Your task to perform on an android device: open the mobile data screen to see how much data has been used Image 0: 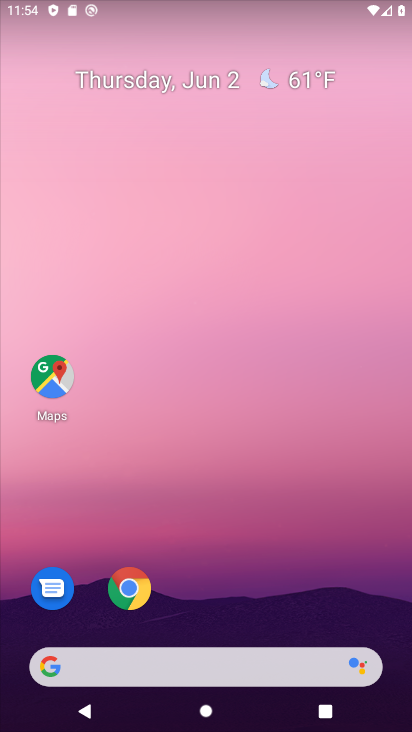
Step 0: click (237, 150)
Your task to perform on an android device: open the mobile data screen to see how much data has been used Image 1: 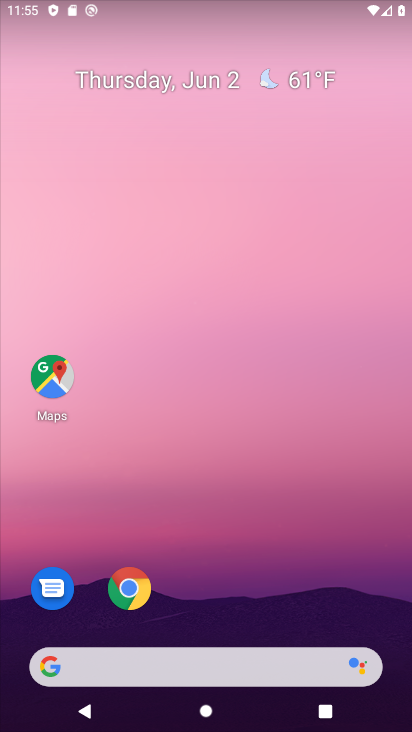
Step 1: drag from (231, 164) to (272, 119)
Your task to perform on an android device: open the mobile data screen to see how much data has been used Image 2: 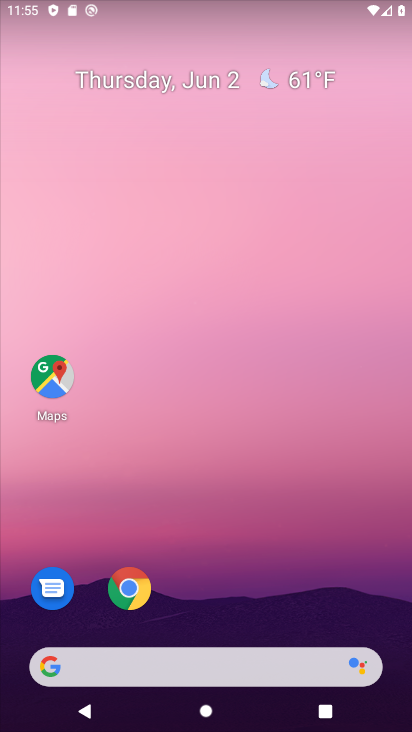
Step 2: drag from (201, 567) to (219, 67)
Your task to perform on an android device: open the mobile data screen to see how much data has been used Image 3: 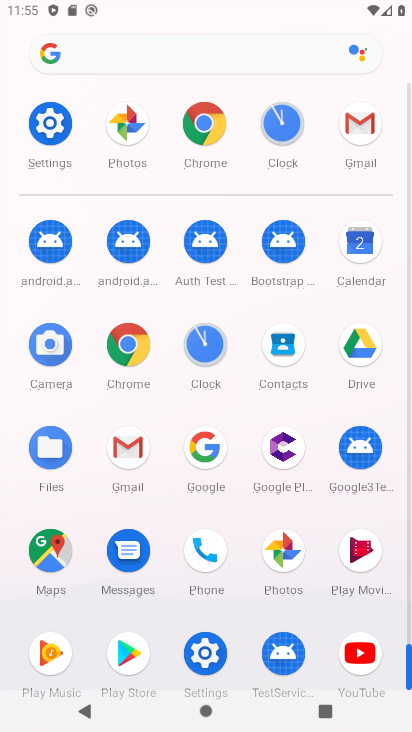
Step 3: drag from (239, 199) to (228, 39)
Your task to perform on an android device: open the mobile data screen to see how much data has been used Image 4: 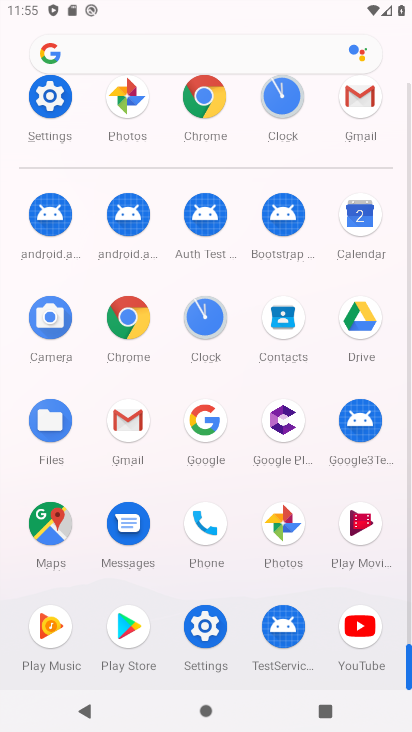
Step 4: click (211, 626)
Your task to perform on an android device: open the mobile data screen to see how much data has been used Image 5: 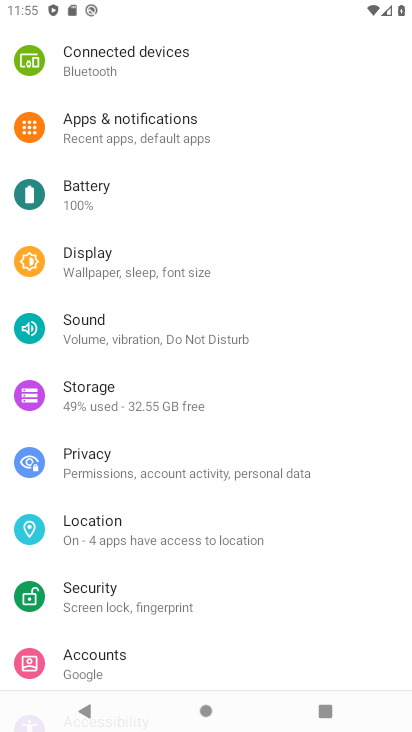
Step 5: drag from (193, 213) to (250, 551)
Your task to perform on an android device: open the mobile data screen to see how much data has been used Image 6: 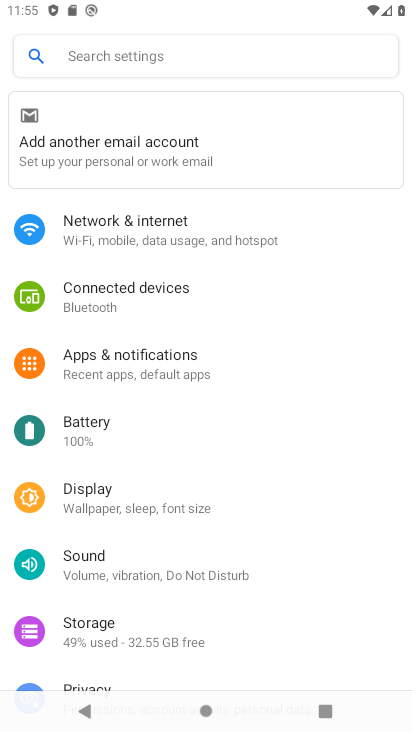
Step 6: drag from (163, 560) to (165, 367)
Your task to perform on an android device: open the mobile data screen to see how much data has been used Image 7: 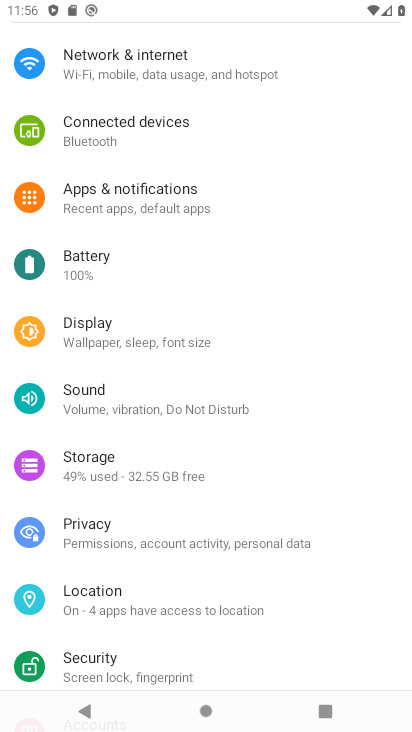
Step 7: drag from (224, 183) to (244, 494)
Your task to perform on an android device: open the mobile data screen to see how much data has been used Image 8: 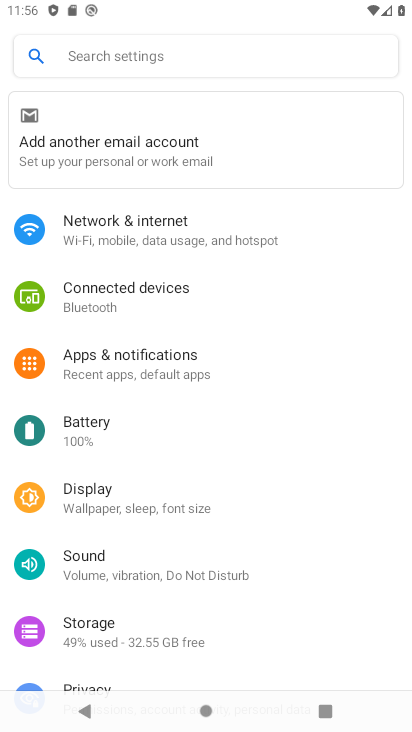
Step 8: click (198, 247)
Your task to perform on an android device: open the mobile data screen to see how much data has been used Image 9: 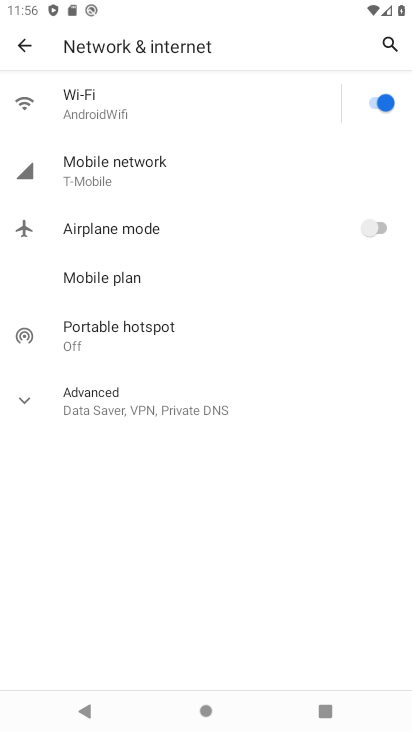
Step 9: click (168, 186)
Your task to perform on an android device: open the mobile data screen to see how much data has been used Image 10: 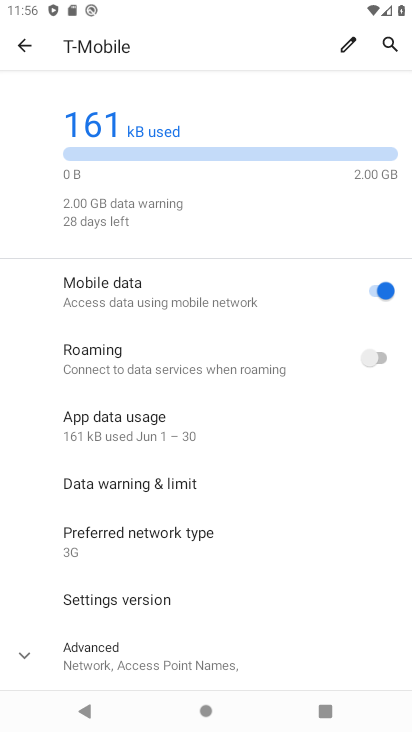
Step 10: click (181, 444)
Your task to perform on an android device: open the mobile data screen to see how much data has been used Image 11: 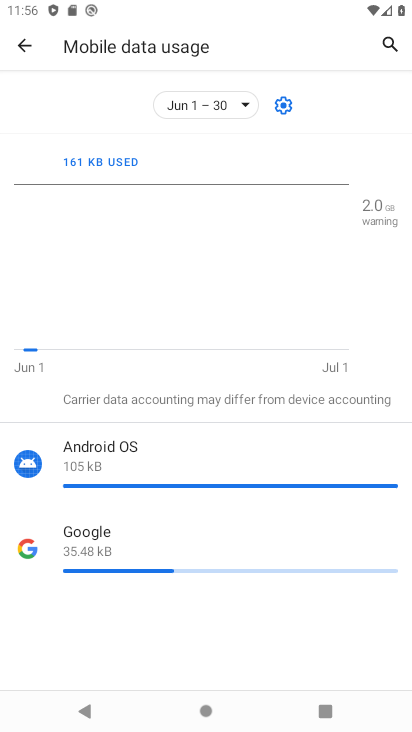
Step 11: task complete